Your task to perform on an android device: turn on improve location accuracy Image 0: 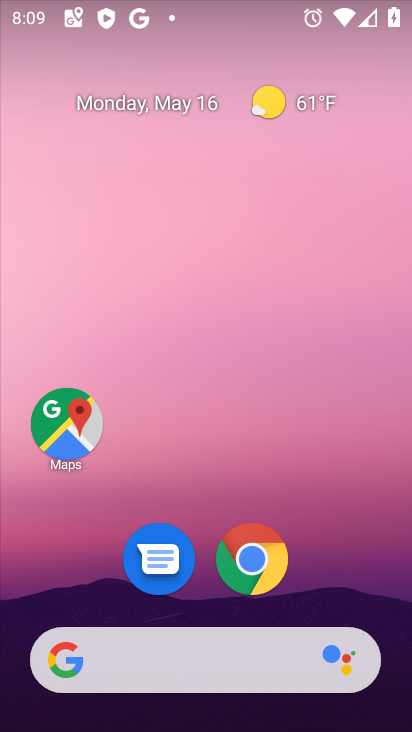
Step 0: drag from (368, 579) to (322, 234)
Your task to perform on an android device: turn on improve location accuracy Image 1: 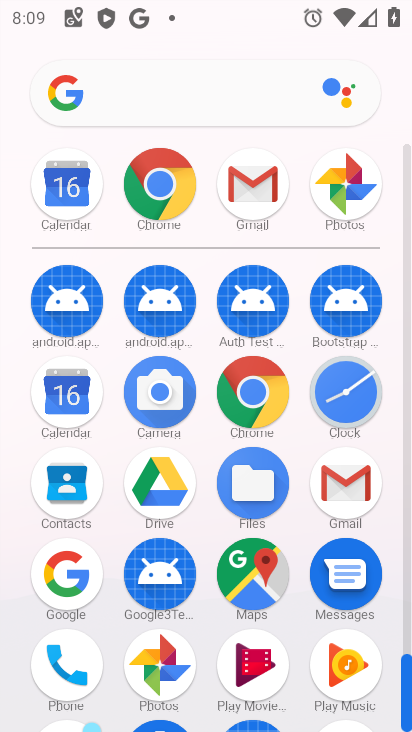
Step 1: drag from (212, 567) to (217, 279)
Your task to perform on an android device: turn on improve location accuracy Image 2: 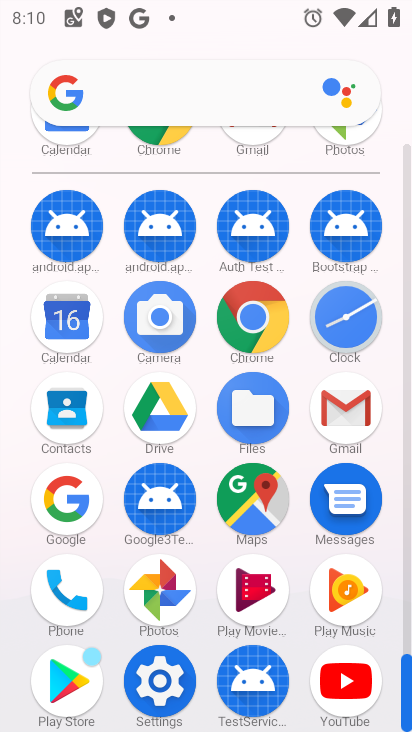
Step 2: click (149, 667)
Your task to perform on an android device: turn on improve location accuracy Image 3: 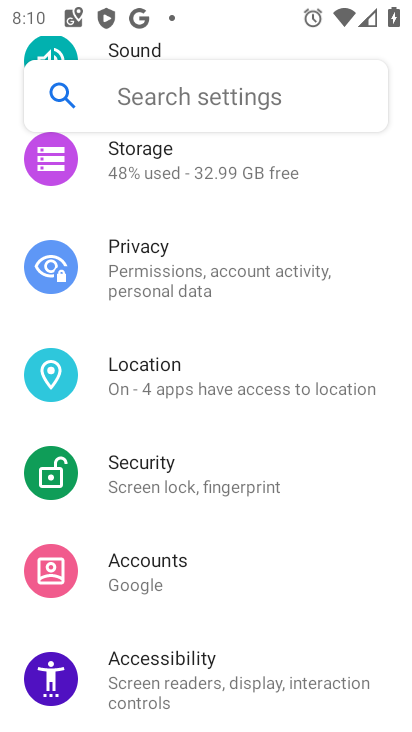
Step 3: click (208, 367)
Your task to perform on an android device: turn on improve location accuracy Image 4: 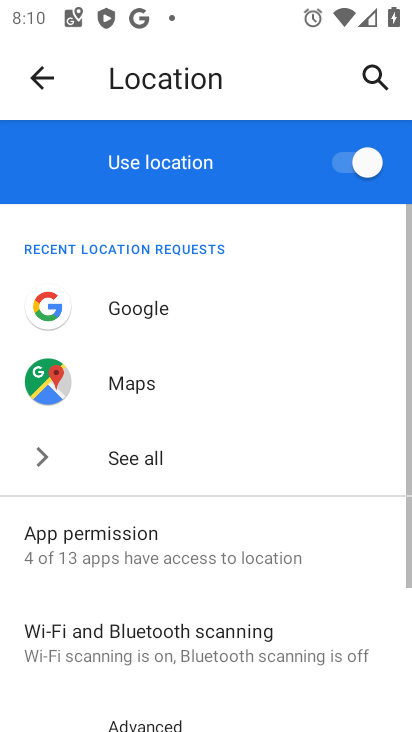
Step 4: drag from (201, 649) to (244, 352)
Your task to perform on an android device: turn on improve location accuracy Image 5: 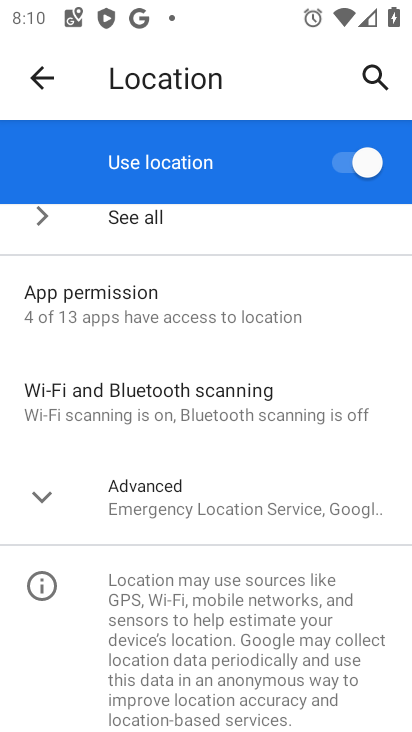
Step 5: click (236, 525)
Your task to perform on an android device: turn on improve location accuracy Image 6: 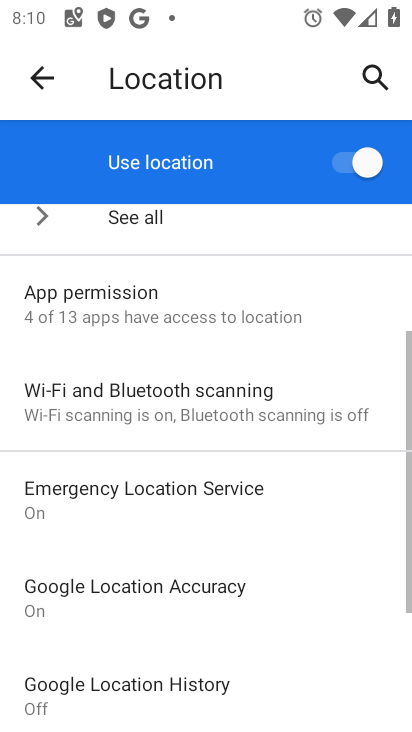
Step 6: click (198, 604)
Your task to perform on an android device: turn on improve location accuracy Image 7: 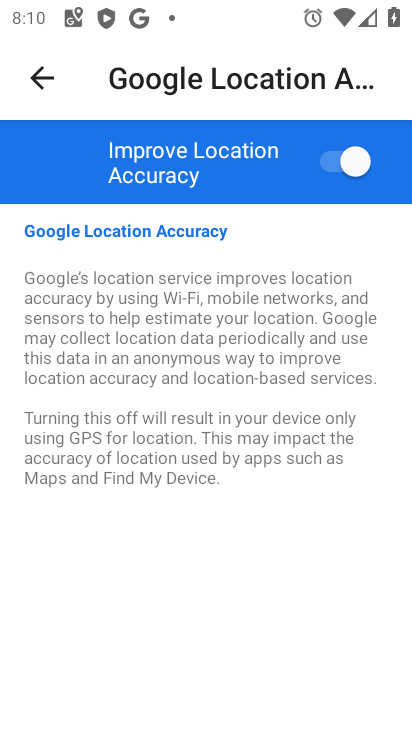
Step 7: task complete